Your task to perform on an android device: Open settings on Google Maps Image 0: 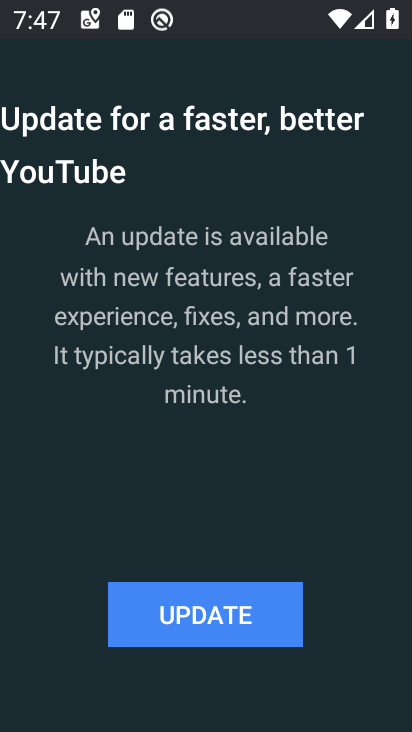
Step 0: press back button
Your task to perform on an android device: Open settings on Google Maps Image 1: 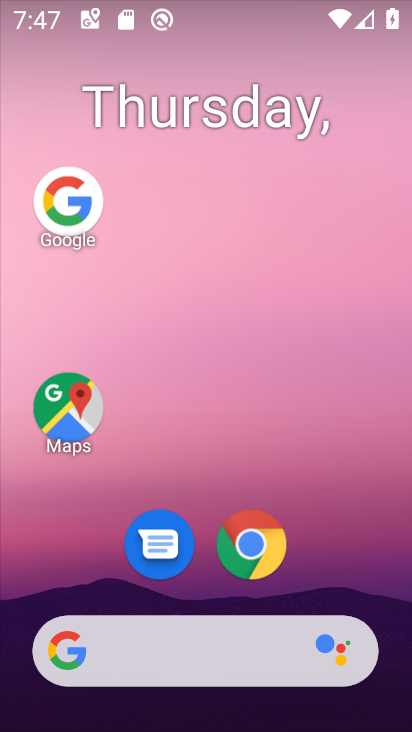
Step 1: drag from (221, 700) to (220, 259)
Your task to perform on an android device: Open settings on Google Maps Image 2: 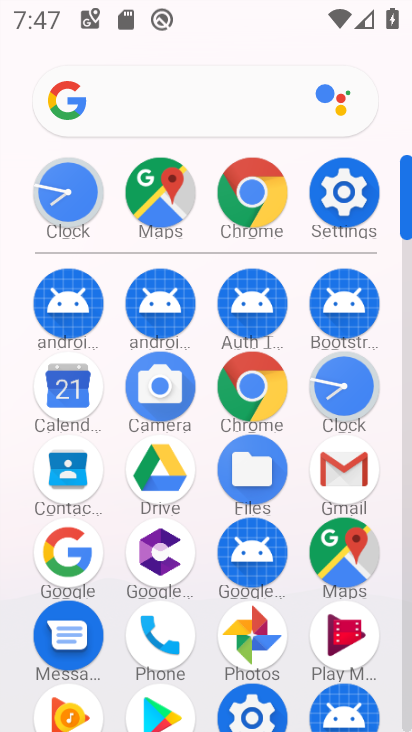
Step 2: click (176, 215)
Your task to perform on an android device: Open settings on Google Maps Image 3: 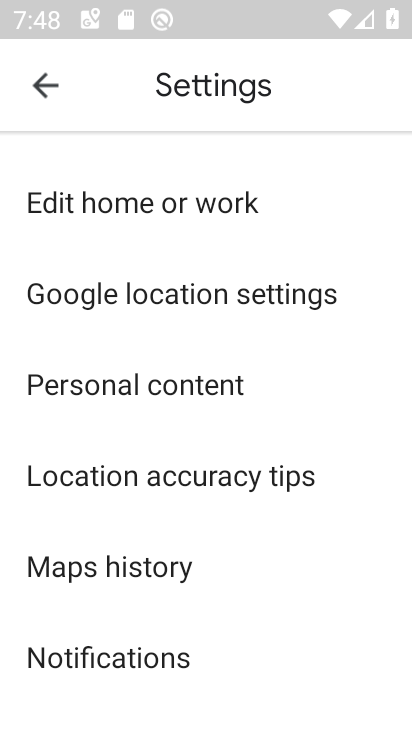
Step 3: task complete